Your task to perform on an android device: toggle notifications settings in the gmail app Image 0: 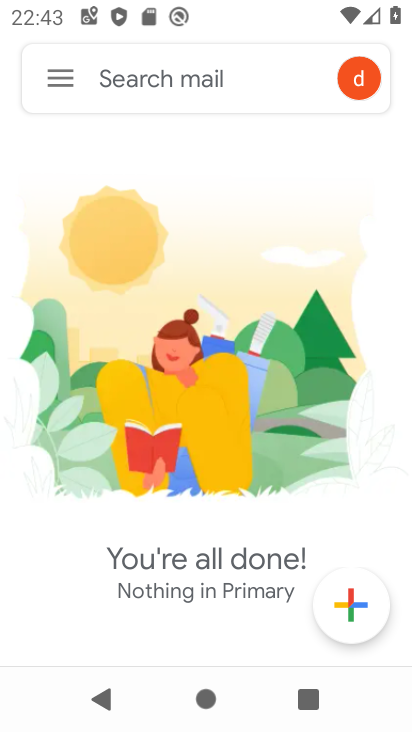
Step 0: click (55, 65)
Your task to perform on an android device: toggle notifications settings in the gmail app Image 1: 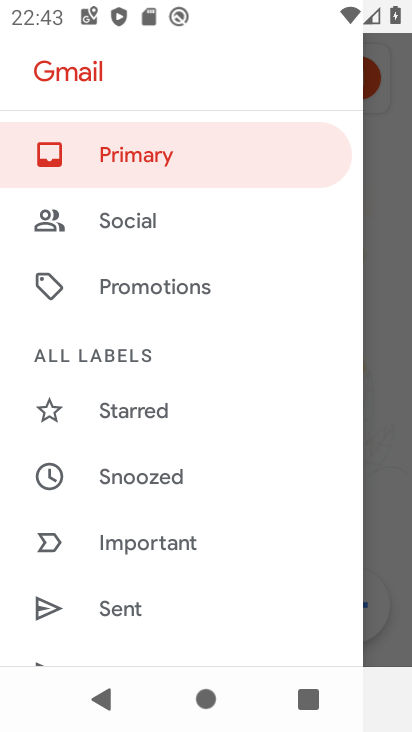
Step 1: drag from (187, 618) to (243, 181)
Your task to perform on an android device: toggle notifications settings in the gmail app Image 2: 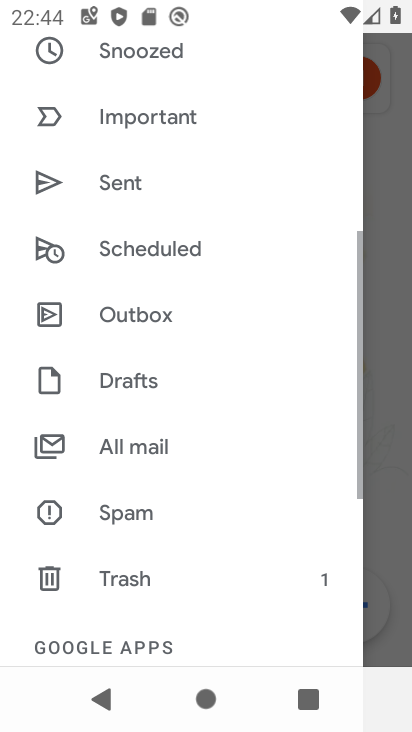
Step 2: drag from (232, 520) to (208, 196)
Your task to perform on an android device: toggle notifications settings in the gmail app Image 3: 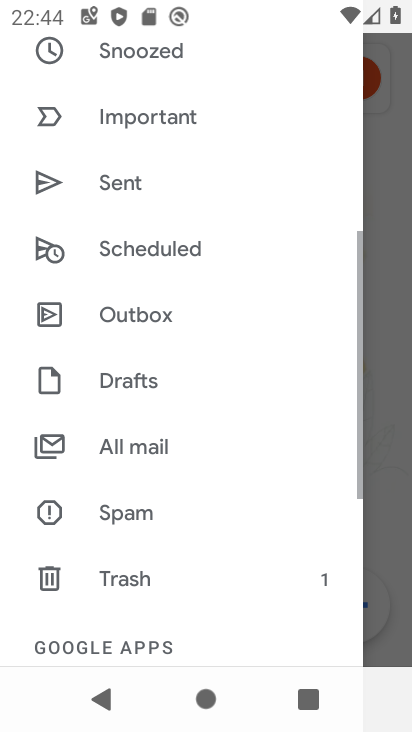
Step 3: drag from (180, 459) to (191, 183)
Your task to perform on an android device: toggle notifications settings in the gmail app Image 4: 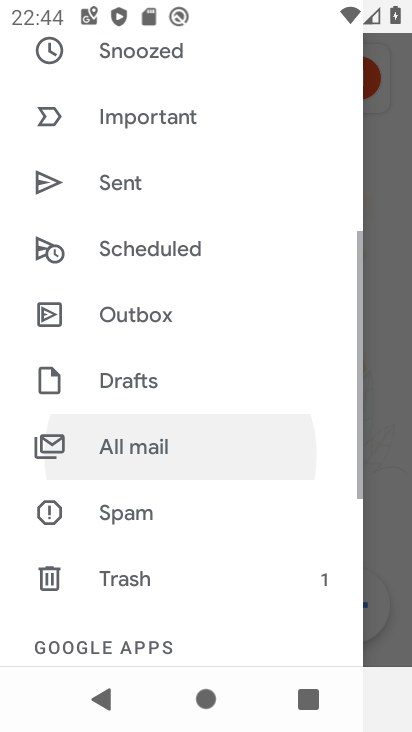
Step 4: drag from (162, 530) to (229, 238)
Your task to perform on an android device: toggle notifications settings in the gmail app Image 5: 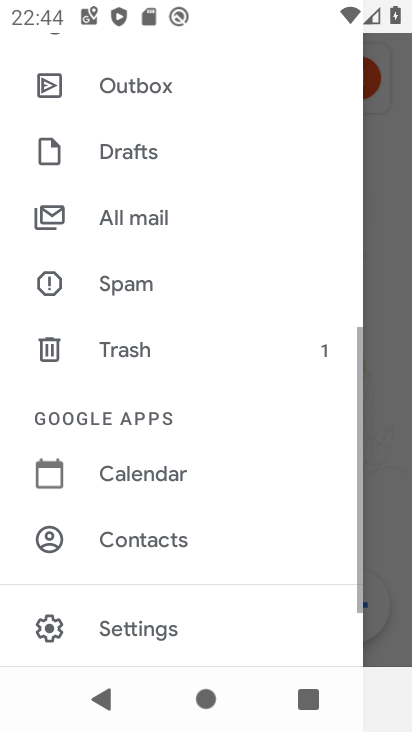
Step 5: drag from (220, 566) to (221, 344)
Your task to perform on an android device: toggle notifications settings in the gmail app Image 6: 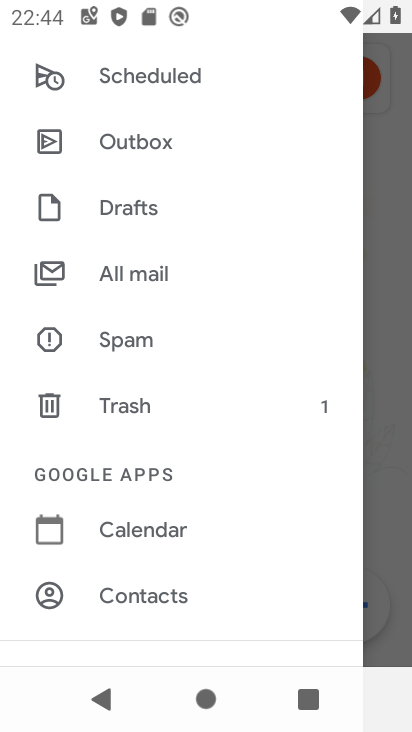
Step 6: drag from (203, 583) to (237, 169)
Your task to perform on an android device: toggle notifications settings in the gmail app Image 7: 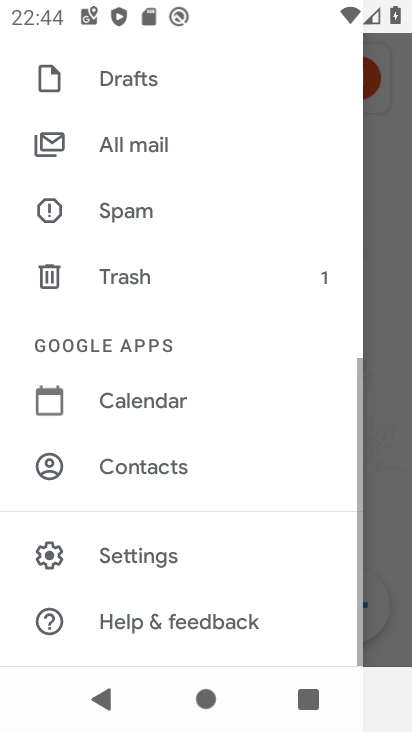
Step 7: drag from (160, 445) to (213, 98)
Your task to perform on an android device: toggle notifications settings in the gmail app Image 8: 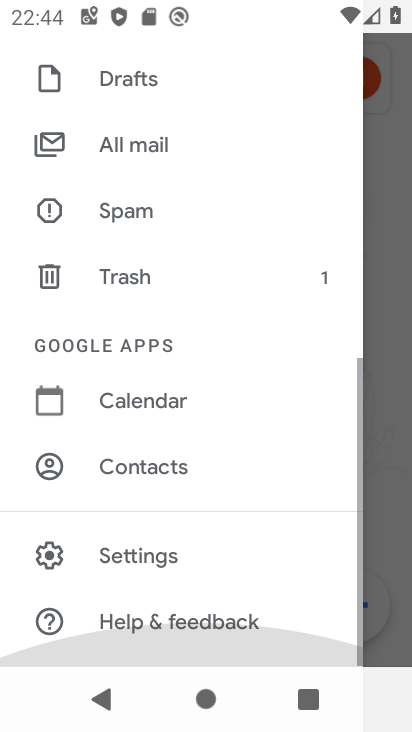
Step 8: drag from (167, 407) to (230, 81)
Your task to perform on an android device: toggle notifications settings in the gmail app Image 9: 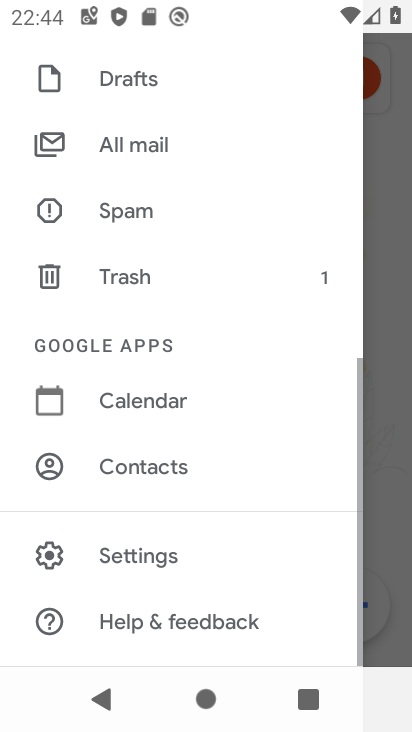
Step 9: click (145, 550)
Your task to perform on an android device: toggle notifications settings in the gmail app Image 10: 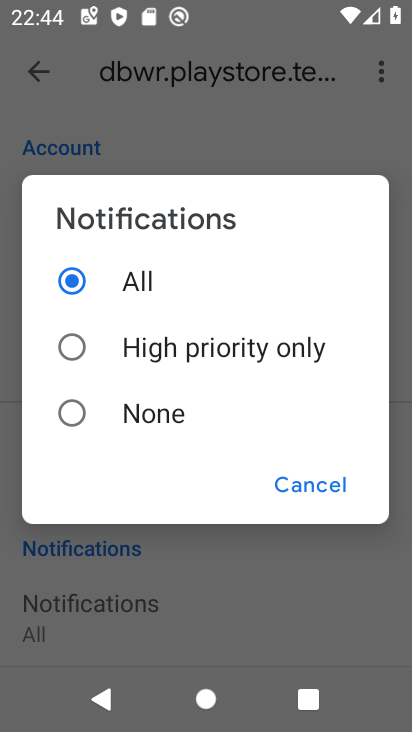
Step 10: click (139, 410)
Your task to perform on an android device: toggle notifications settings in the gmail app Image 11: 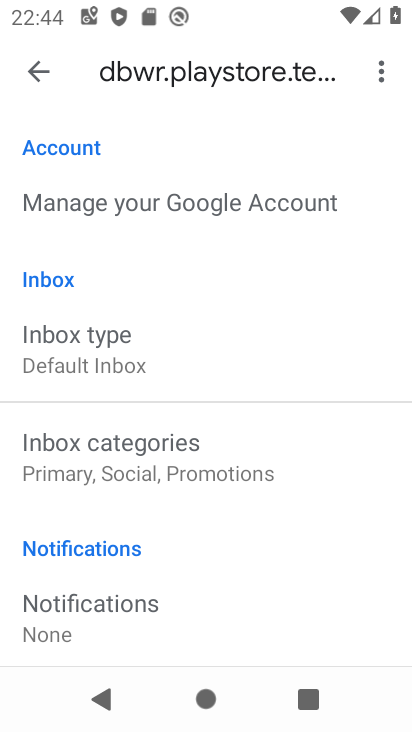
Step 11: task complete